Your task to perform on an android device: set the timer Image 0: 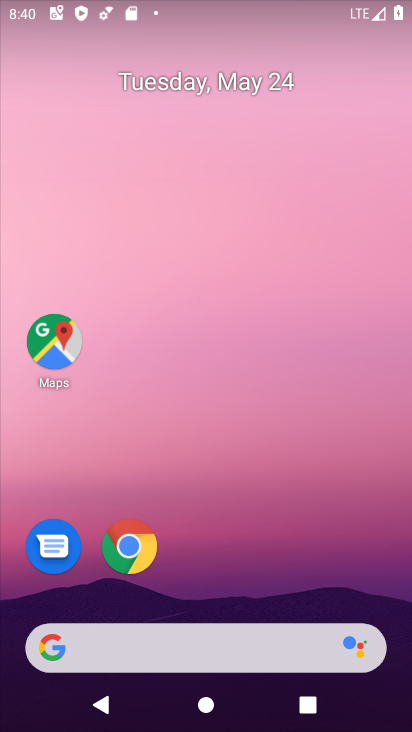
Step 0: drag from (274, 487) to (223, 39)
Your task to perform on an android device: set the timer Image 1: 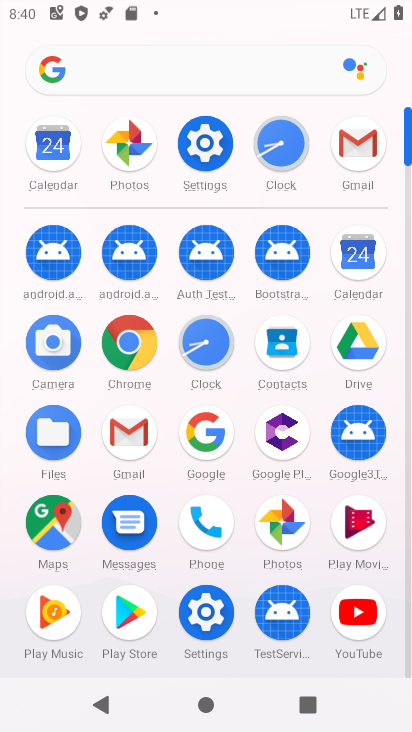
Step 1: click (268, 132)
Your task to perform on an android device: set the timer Image 2: 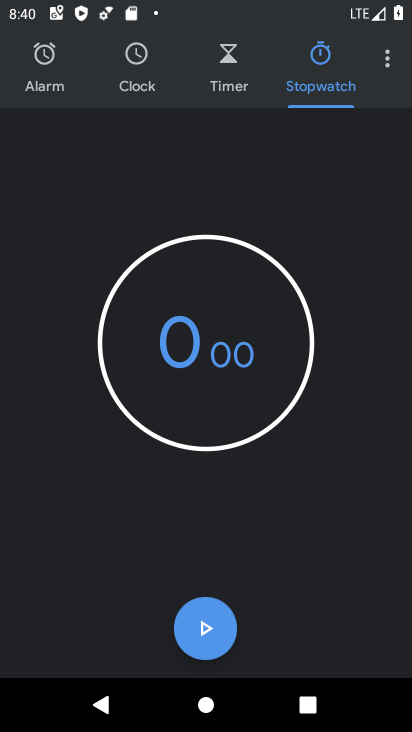
Step 2: click (229, 65)
Your task to perform on an android device: set the timer Image 3: 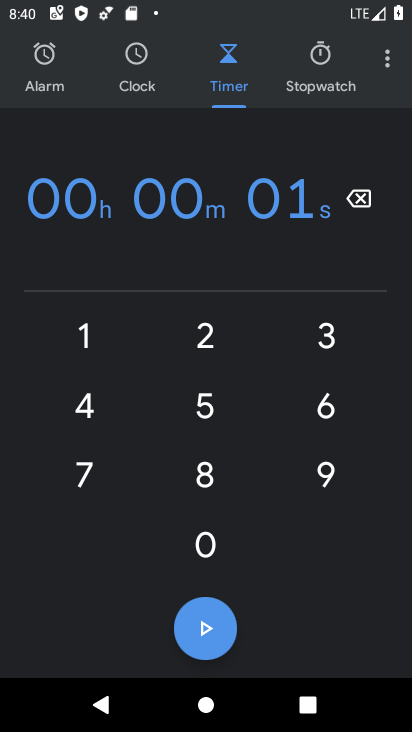
Step 3: click (197, 326)
Your task to perform on an android device: set the timer Image 4: 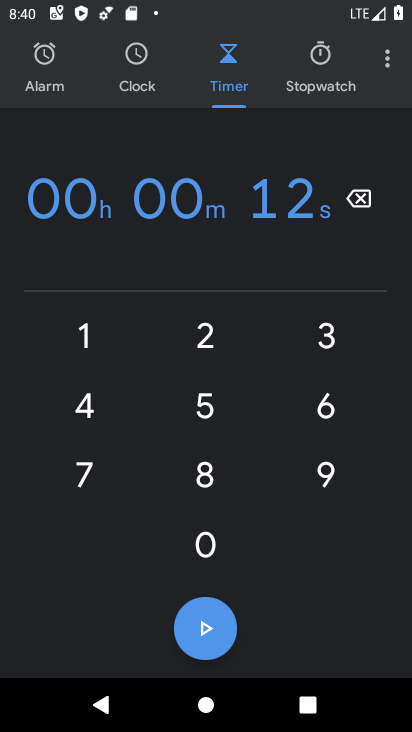
Step 4: task complete